Your task to perform on an android device: Do I have any events today? Image 0: 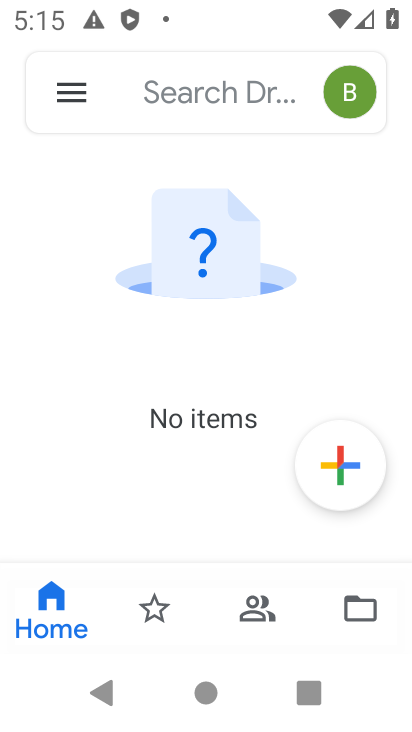
Step 0: press home button
Your task to perform on an android device: Do I have any events today? Image 1: 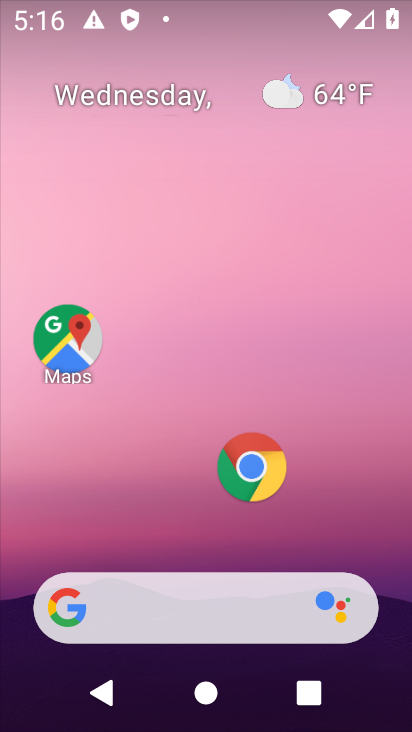
Step 1: drag from (160, 511) to (231, 159)
Your task to perform on an android device: Do I have any events today? Image 2: 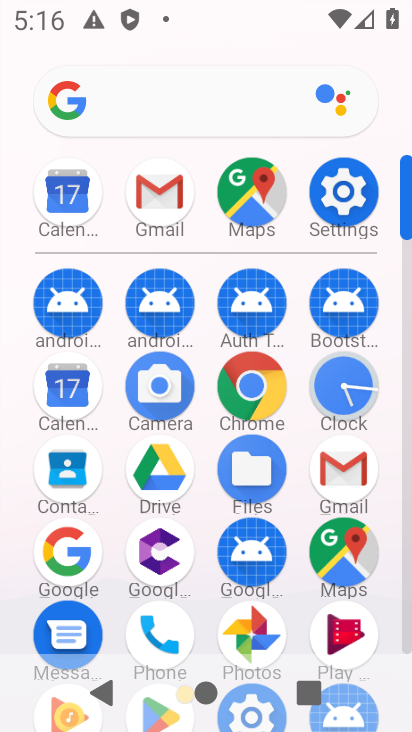
Step 2: click (82, 390)
Your task to perform on an android device: Do I have any events today? Image 3: 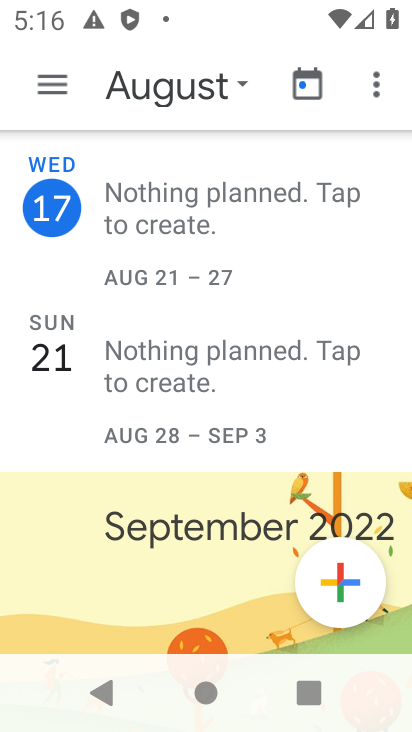
Step 3: task complete